Your task to perform on an android device: move an email to a new category in the gmail app Image 0: 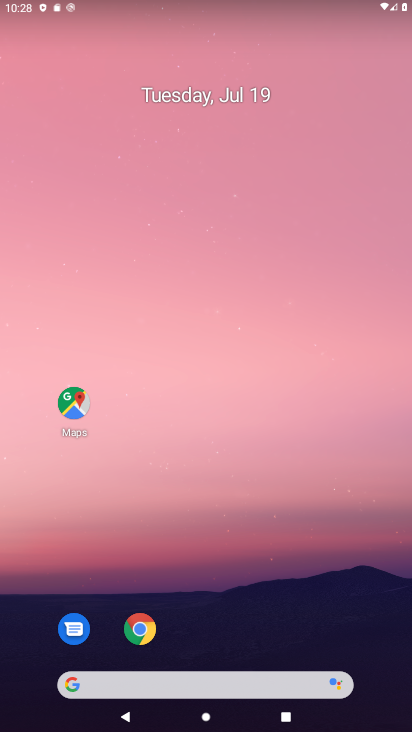
Step 0: drag from (299, 580) to (285, 213)
Your task to perform on an android device: move an email to a new category in the gmail app Image 1: 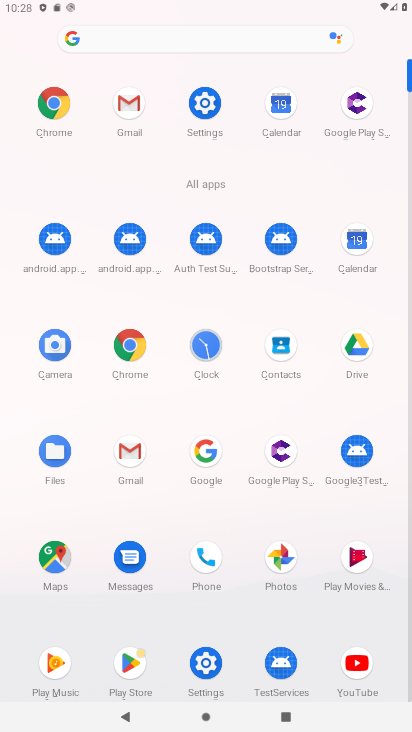
Step 1: click (131, 452)
Your task to perform on an android device: move an email to a new category in the gmail app Image 2: 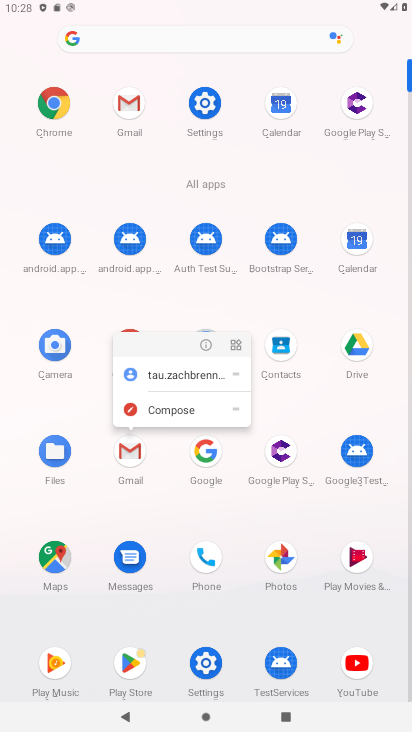
Step 2: click (129, 450)
Your task to perform on an android device: move an email to a new category in the gmail app Image 3: 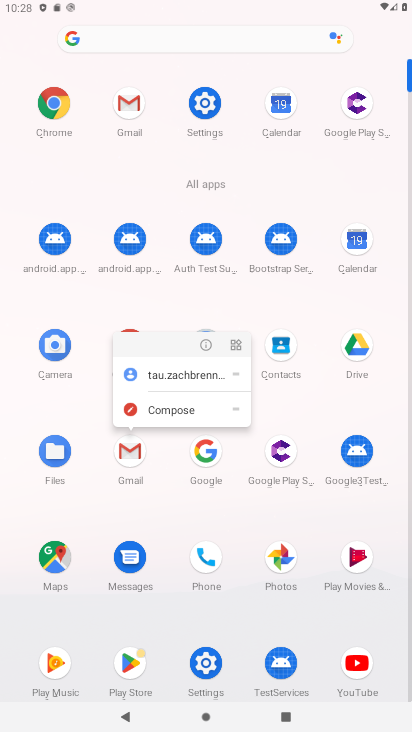
Step 3: click (132, 448)
Your task to perform on an android device: move an email to a new category in the gmail app Image 4: 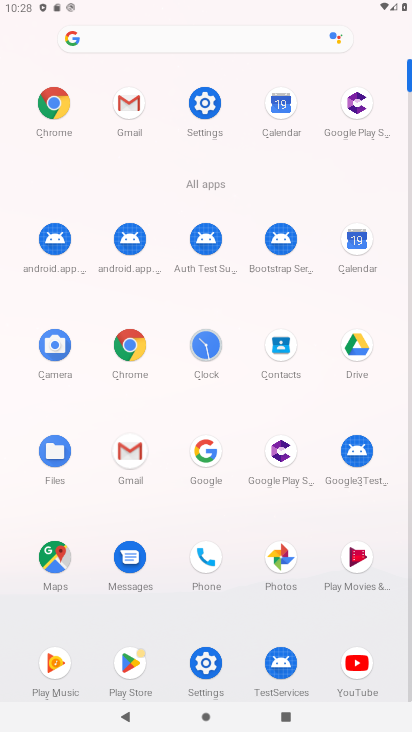
Step 4: click (132, 448)
Your task to perform on an android device: move an email to a new category in the gmail app Image 5: 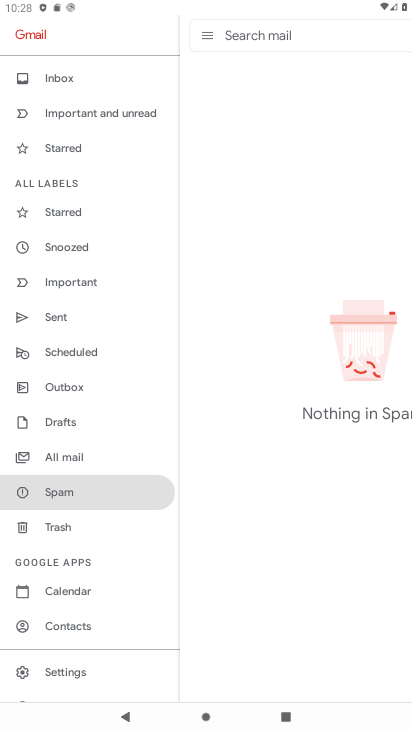
Step 5: click (68, 459)
Your task to perform on an android device: move an email to a new category in the gmail app Image 6: 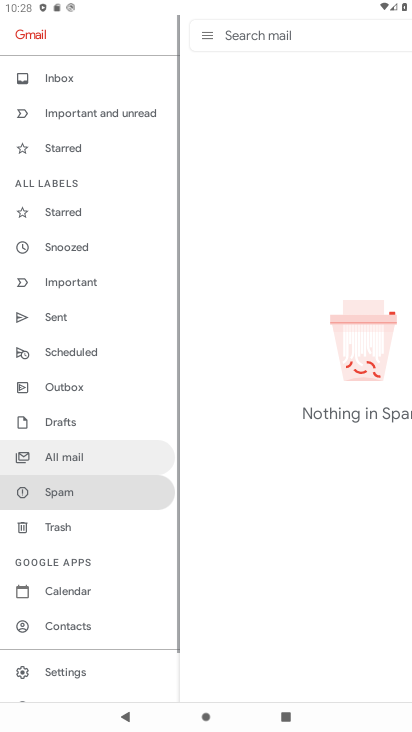
Step 6: click (72, 448)
Your task to perform on an android device: move an email to a new category in the gmail app Image 7: 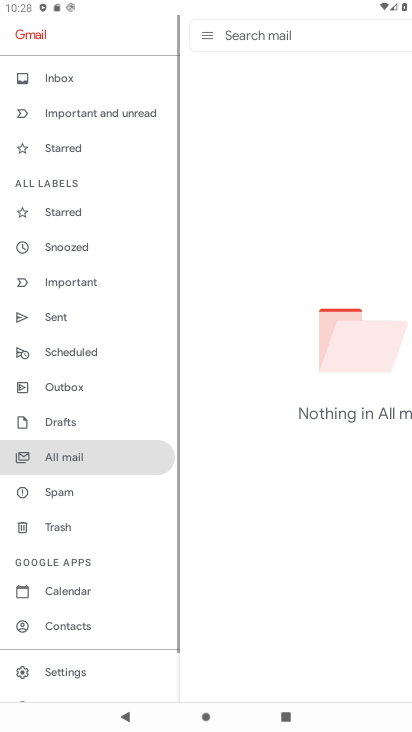
Step 7: task complete